Your task to perform on an android device: all mails in gmail Image 0: 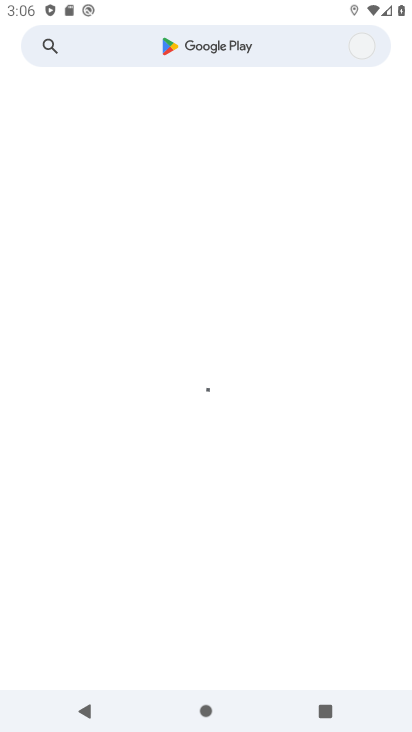
Step 0: press home button
Your task to perform on an android device: all mails in gmail Image 1: 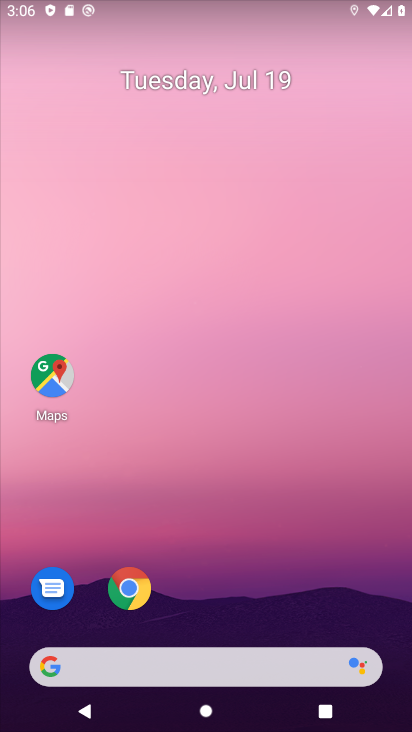
Step 1: drag from (223, 493) to (207, 18)
Your task to perform on an android device: all mails in gmail Image 2: 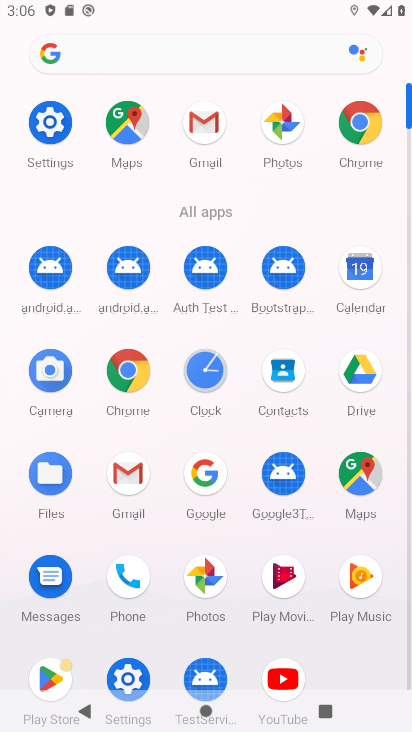
Step 2: click (209, 120)
Your task to perform on an android device: all mails in gmail Image 3: 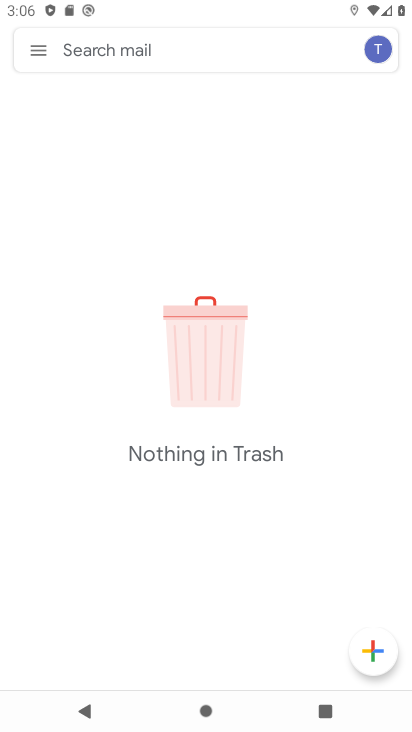
Step 3: click (35, 40)
Your task to perform on an android device: all mails in gmail Image 4: 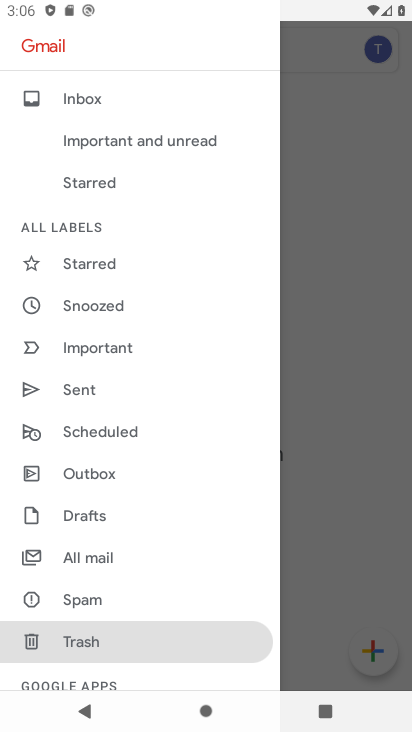
Step 4: click (86, 551)
Your task to perform on an android device: all mails in gmail Image 5: 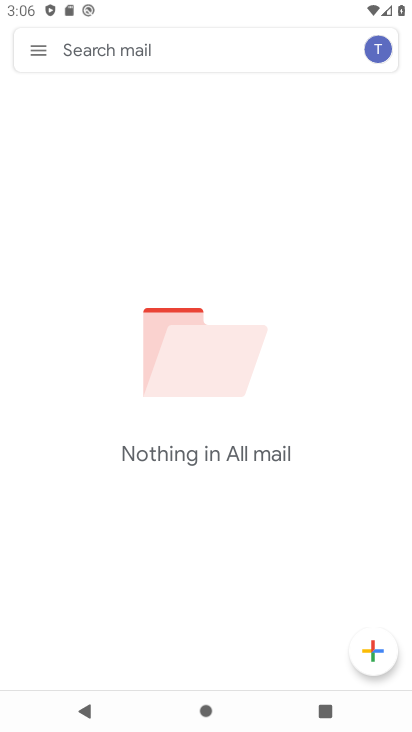
Step 5: task complete